Your task to perform on an android device: Turn off the flashlight Image 0: 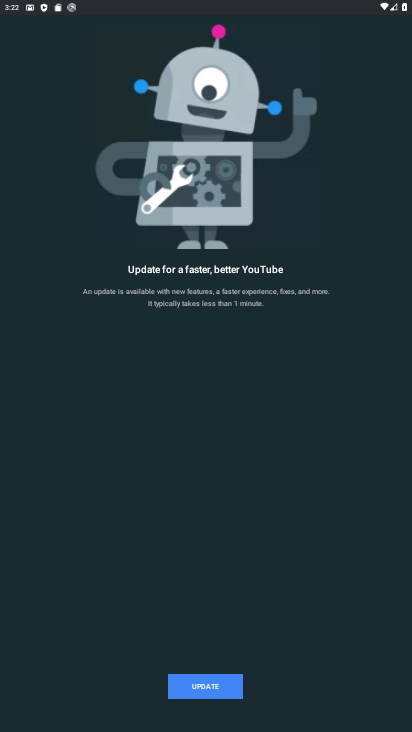
Step 0: press home button
Your task to perform on an android device: Turn off the flashlight Image 1: 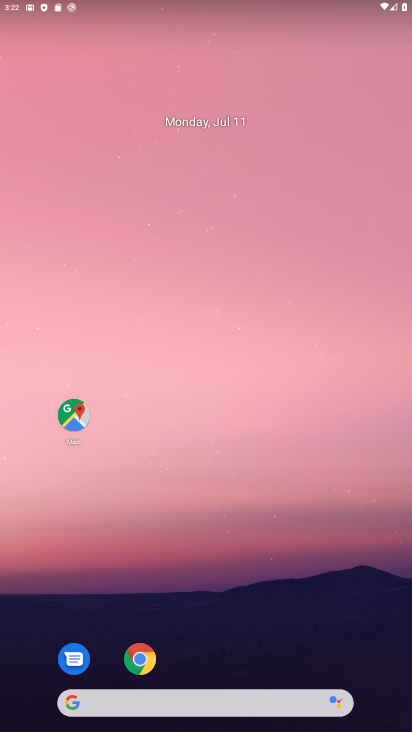
Step 1: drag from (185, 601) to (187, 47)
Your task to perform on an android device: Turn off the flashlight Image 2: 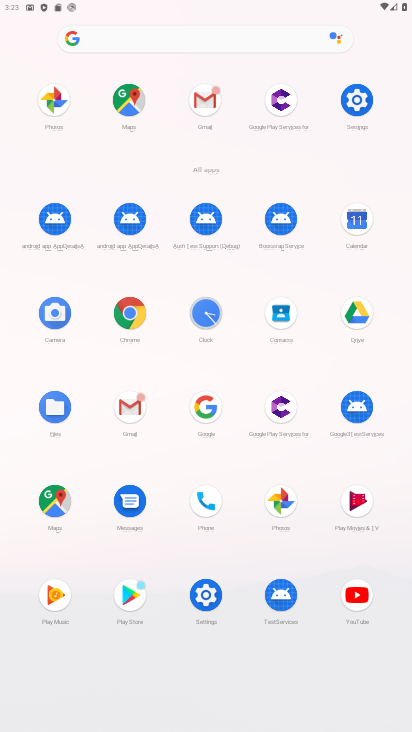
Step 2: click (353, 96)
Your task to perform on an android device: Turn off the flashlight Image 3: 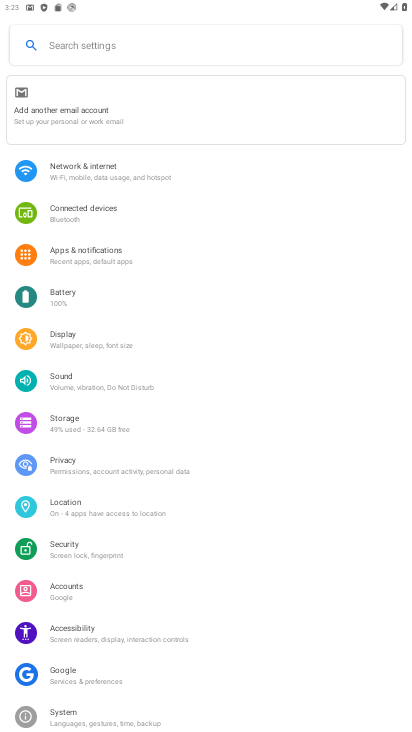
Step 3: task complete